Your task to perform on an android device: Check the weather Image 0: 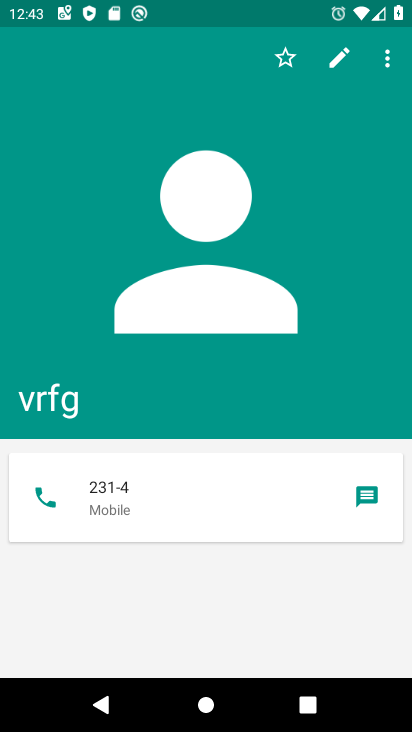
Step 0: press home button
Your task to perform on an android device: Check the weather Image 1: 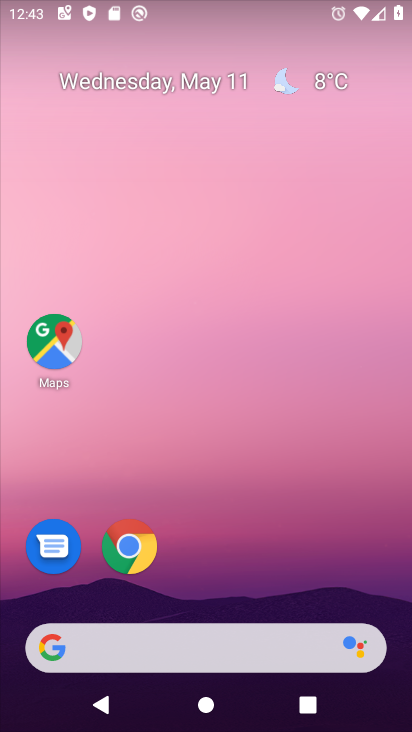
Step 1: click (321, 83)
Your task to perform on an android device: Check the weather Image 2: 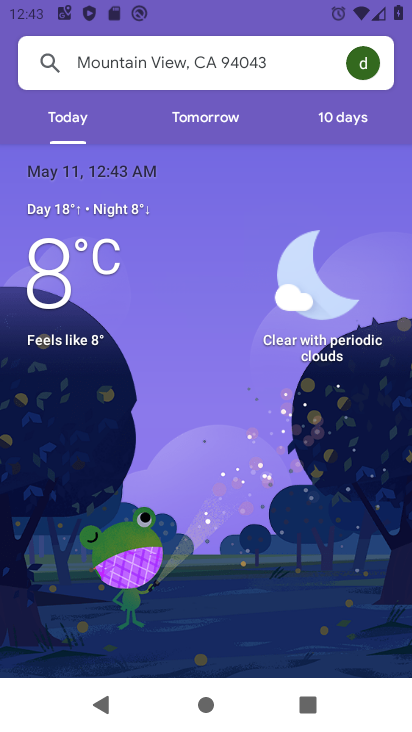
Step 2: task complete